Your task to perform on an android device: change timer sound Image 0: 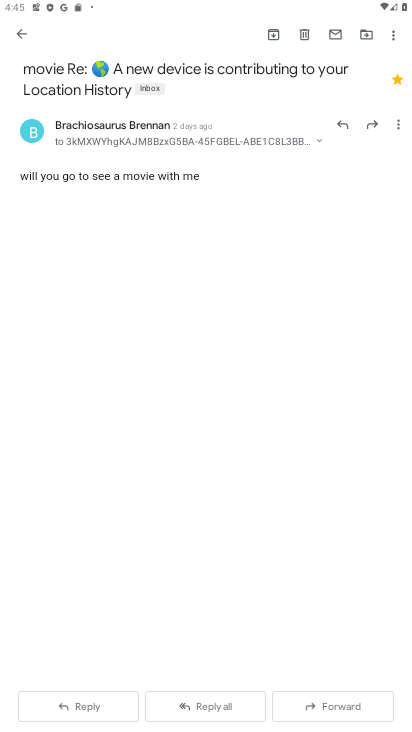
Step 0: press home button
Your task to perform on an android device: change timer sound Image 1: 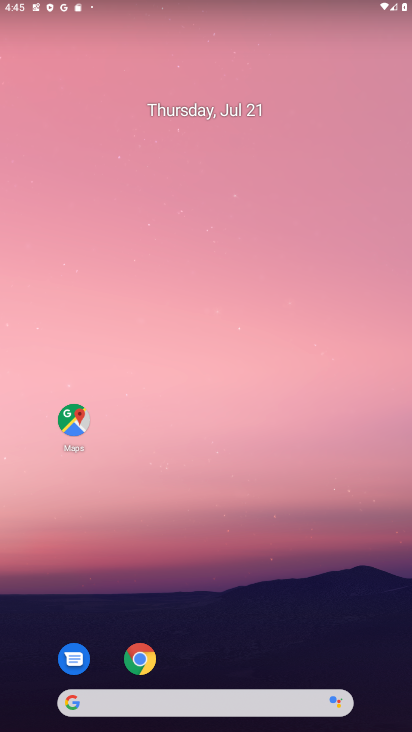
Step 1: drag from (265, 581) to (214, 71)
Your task to perform on an android device: change timer sound Image 2: 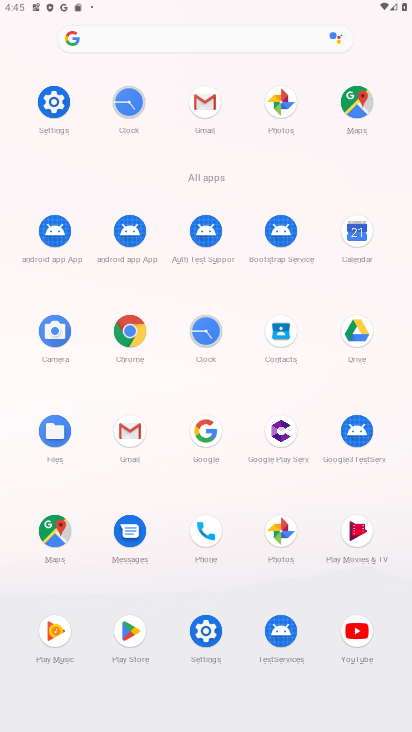
Step 2: click (208, 338)
Your task to perform on an android device: change timer sound Image 3: 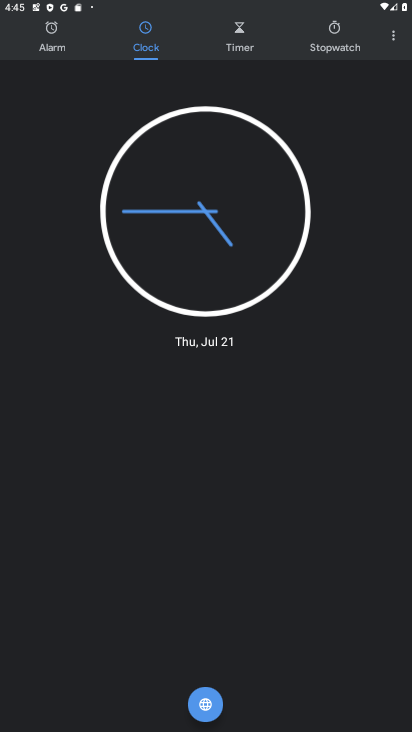
Step 3: click (397, 32)
Your task to perform on an android device: change timer sound Image 4: 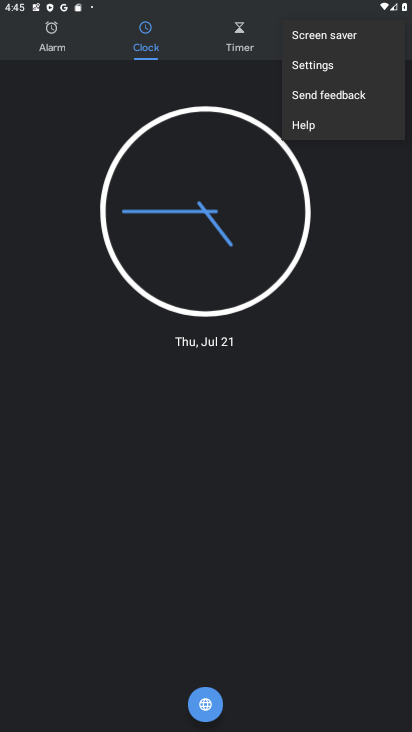
Step 4: click (327, 58)
Your task to perform on an android device: change timer sound Image 5: 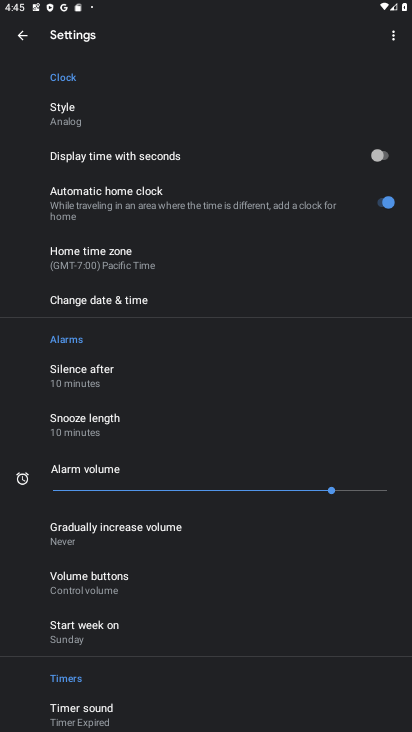
Step 5: click (105, 705)
Your task to perform on an android device: change timer sound Image 6: 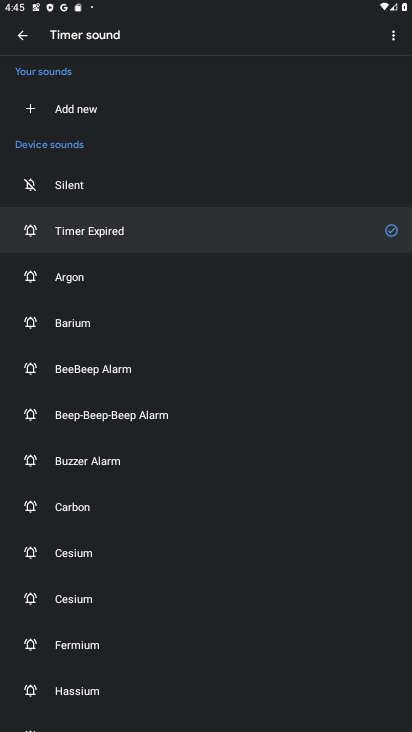
Step 6: click (70, 277)
Your task to perform on an android device: change timer sound Image 7: 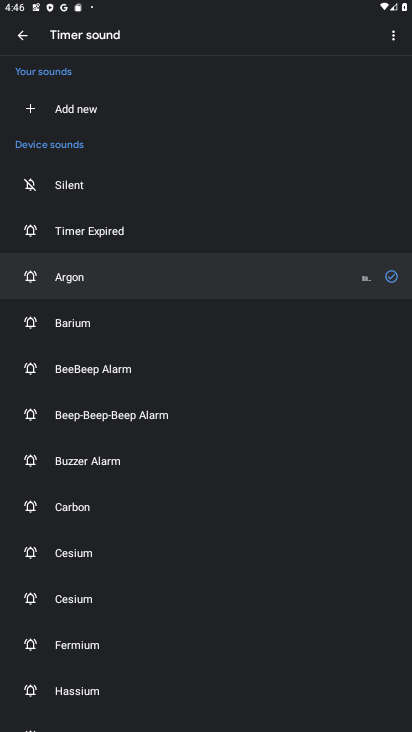
Step 7: task complete